Your task to perform on an android device: turn off location Image 0: 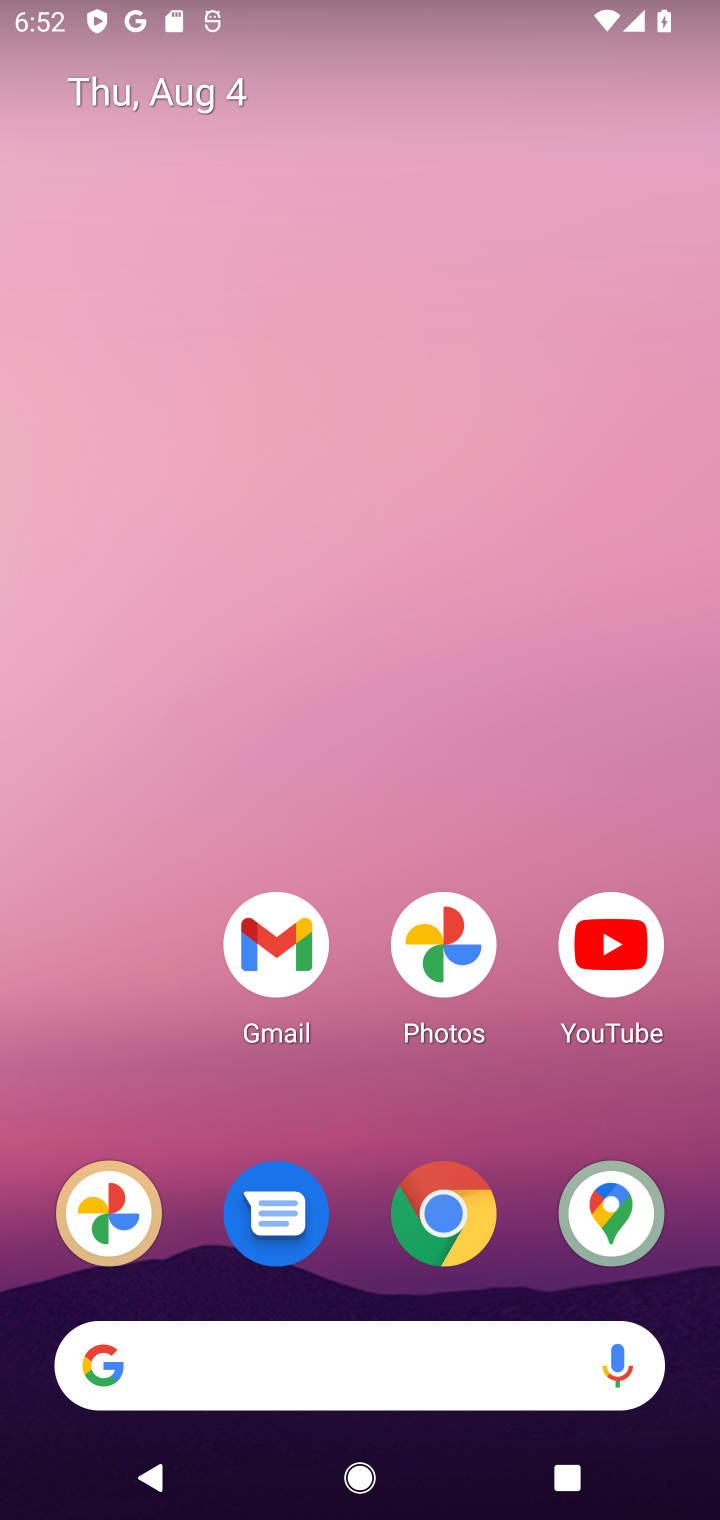
Step 0: drag from (368, 1120) to (466, 44)
Your task to perform on an android device: turn off location Image 1: 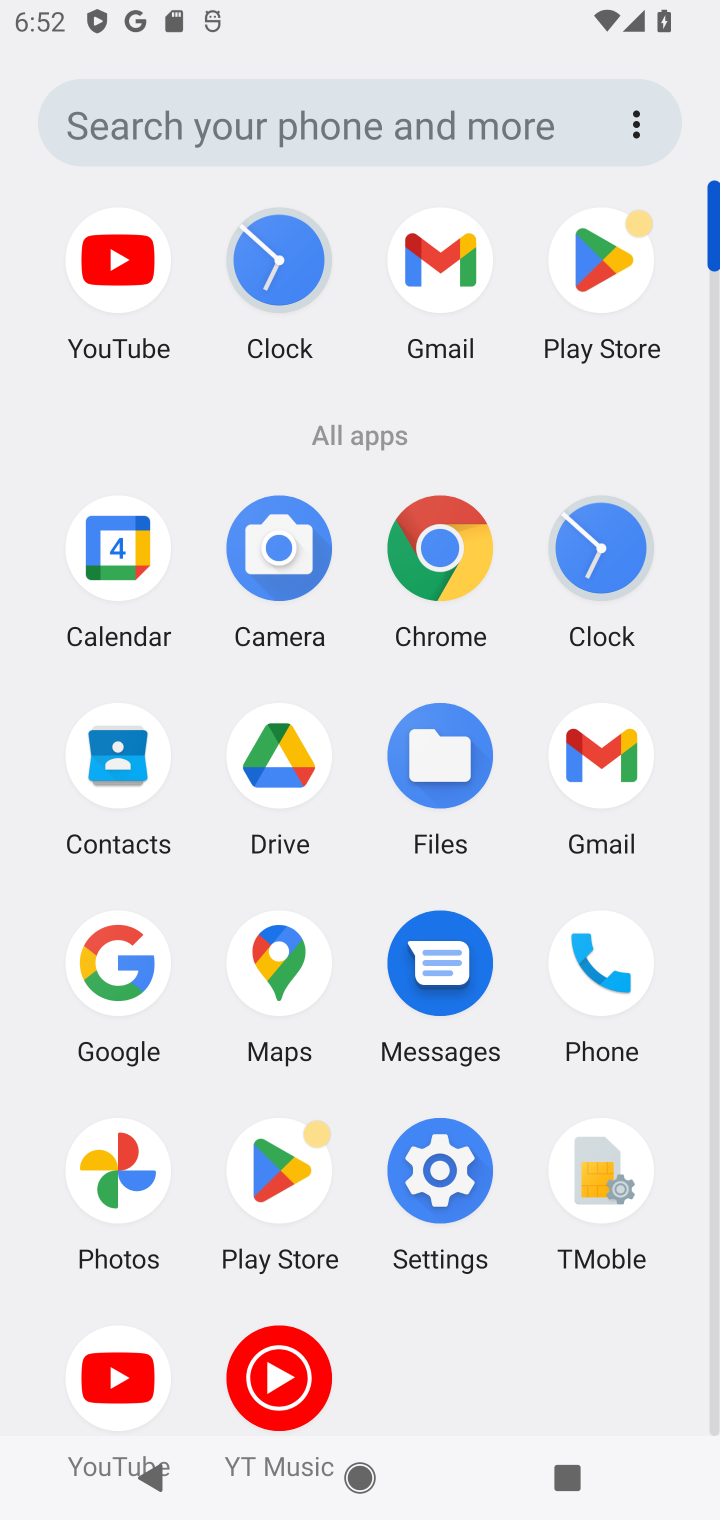
Step 1: click (473, 1147)
Your task to perform on an android device: turn off location Image 2: 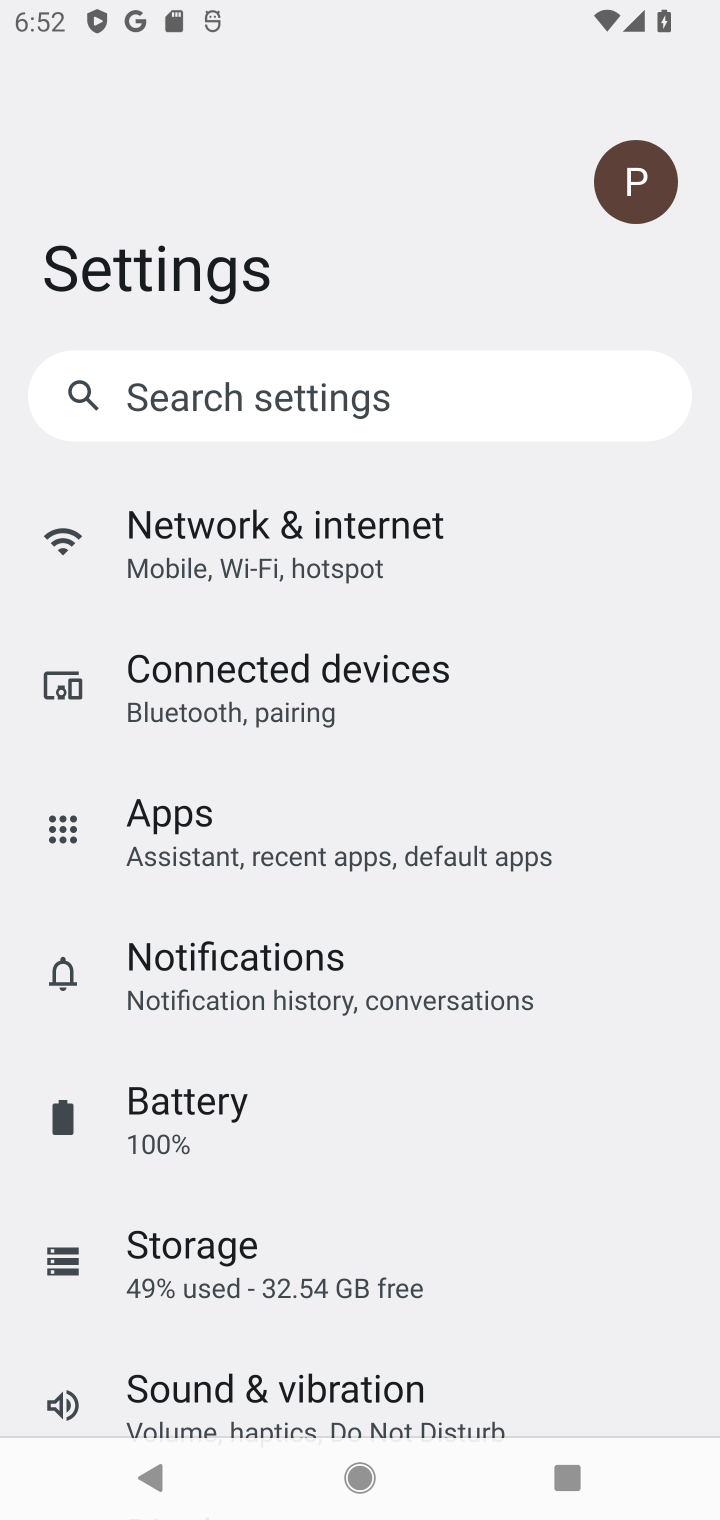
Step 2: drag from (281, 1360) to (328, 348)
Your task to perform on an android device: turn off location Image 3: 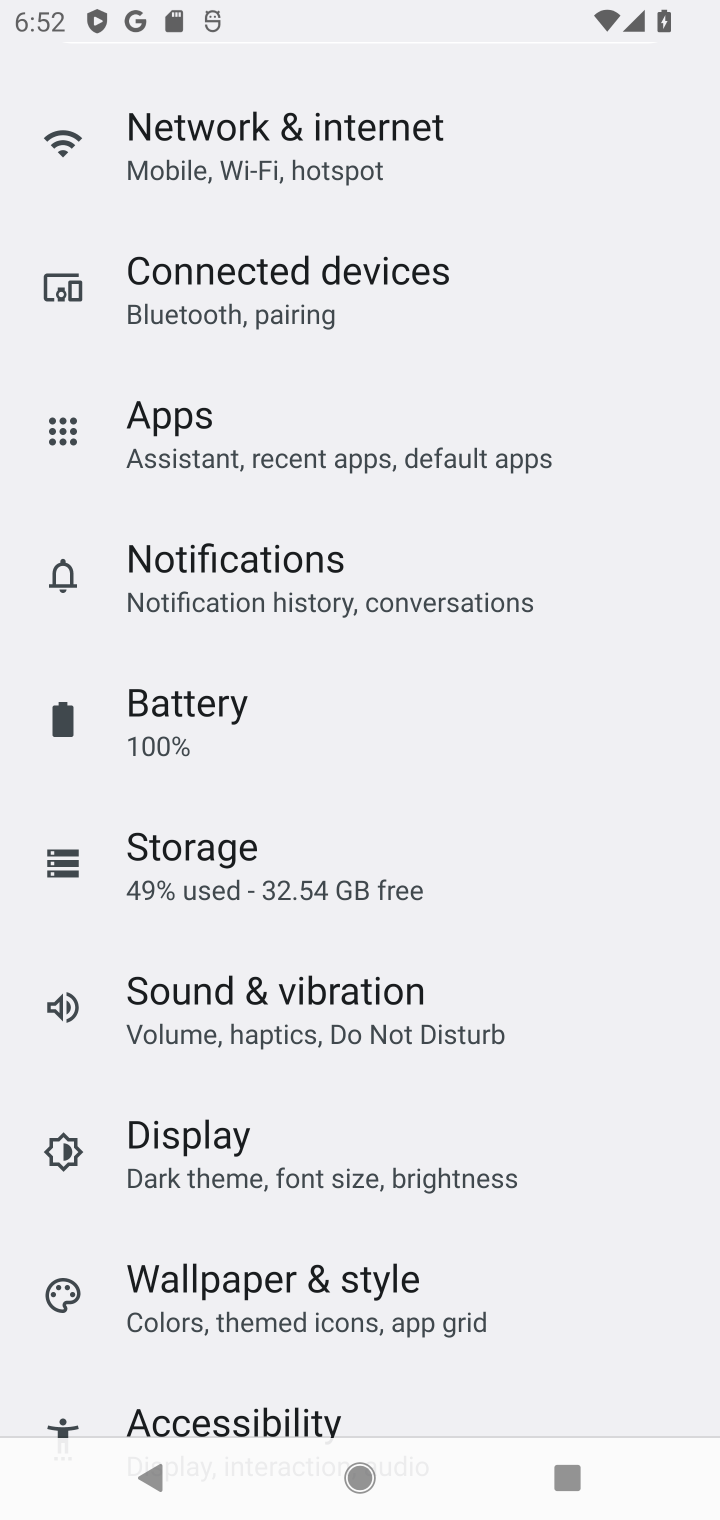
Step 3: drag from (269, 1275) to (286, 271)
Your task to perform on an android device: turn off location Image 4: 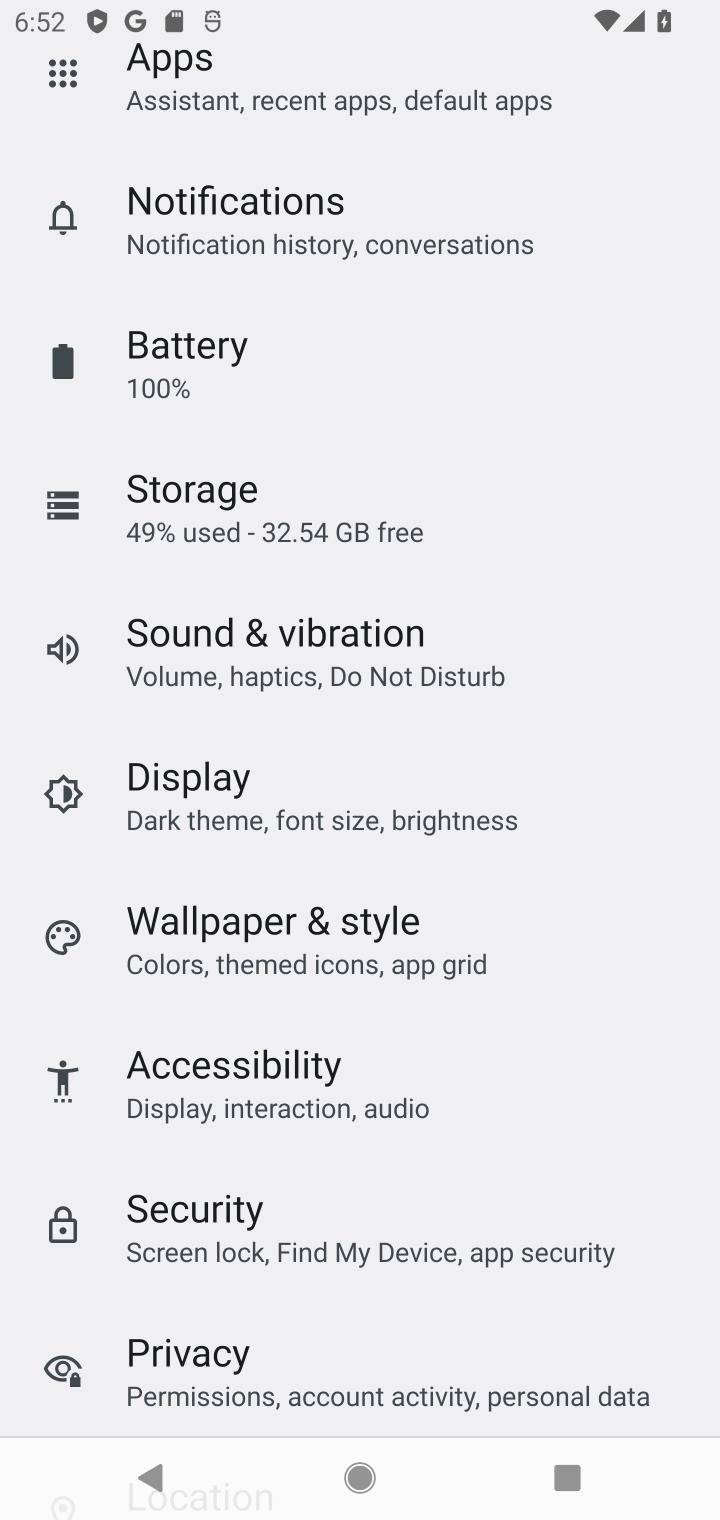
Step 4: drag from (336, 1233) to (283, 266)
Your task to perform on an android device: turn off location Image 5: 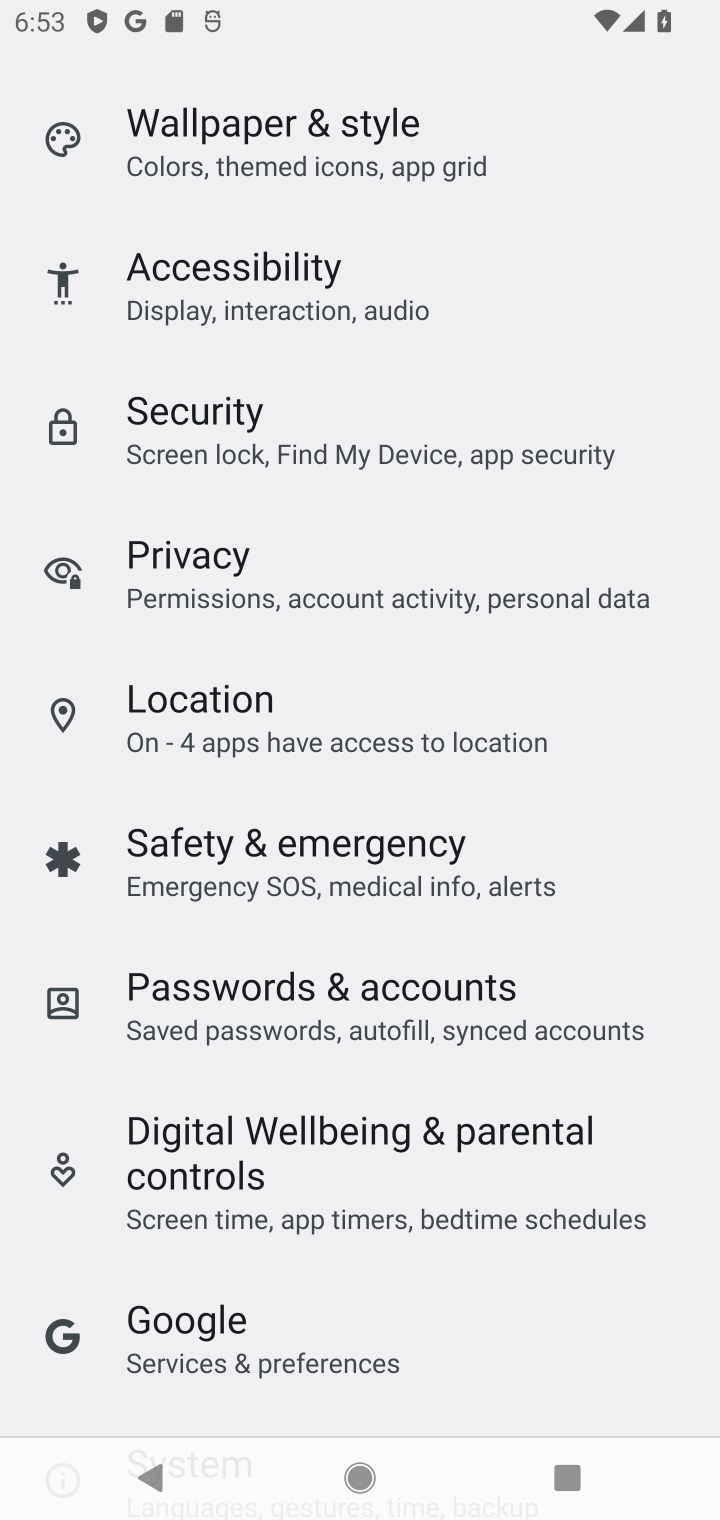
Step 5: click (456, 749)
Your task to perform on an android device: turn off location Image 6: 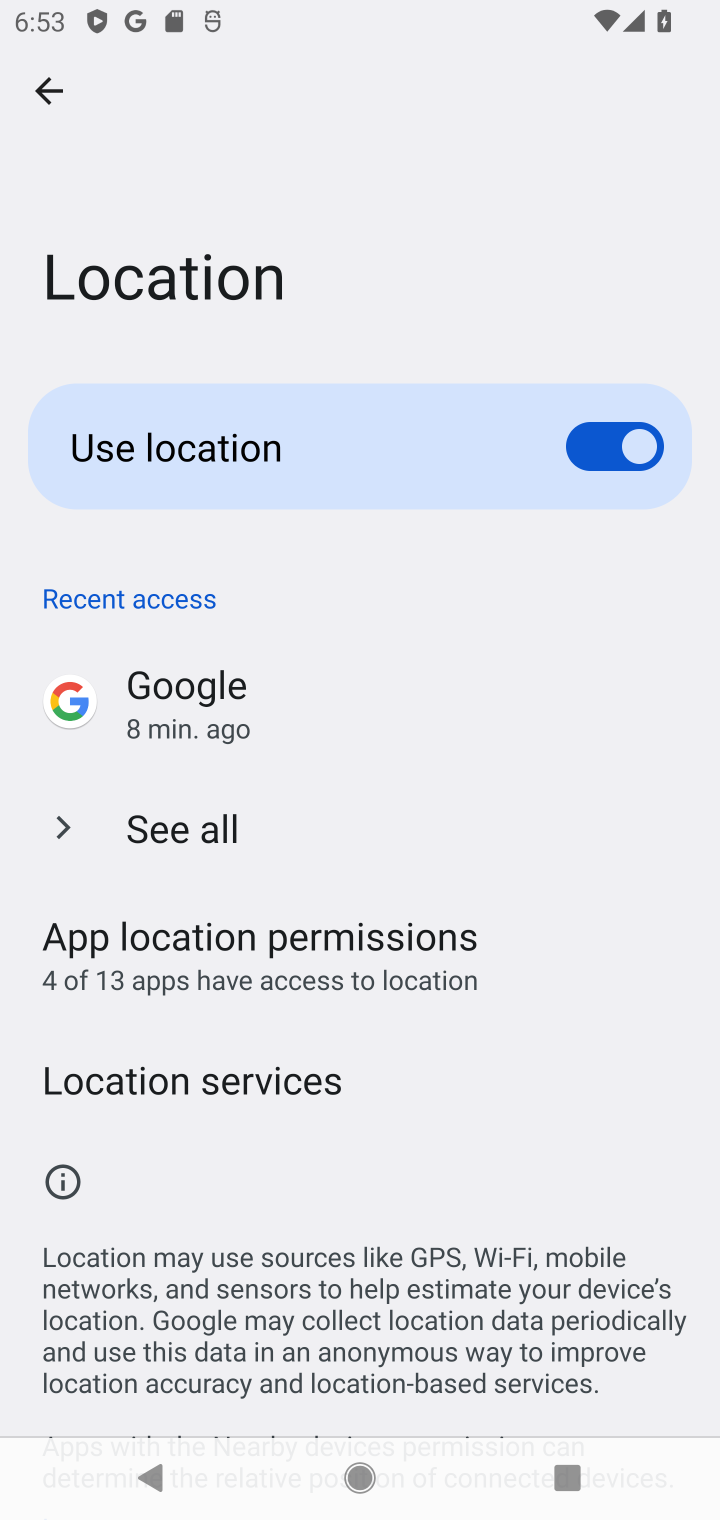
Step 6: click (600, 413)
Your task to perform on an android device: turn off location Image 7: 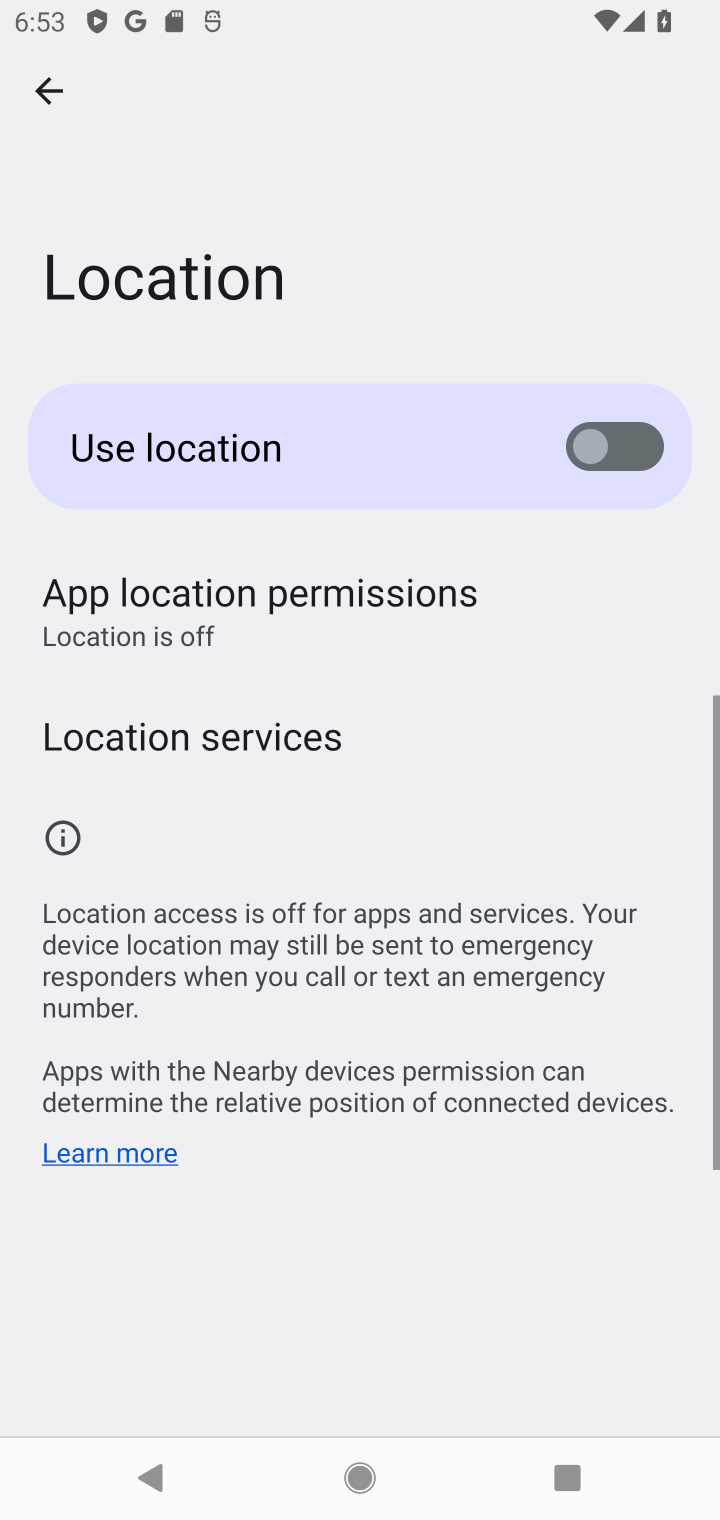
Step 7: task complete